Your task to perform on an android device: check out phone information Image 0: 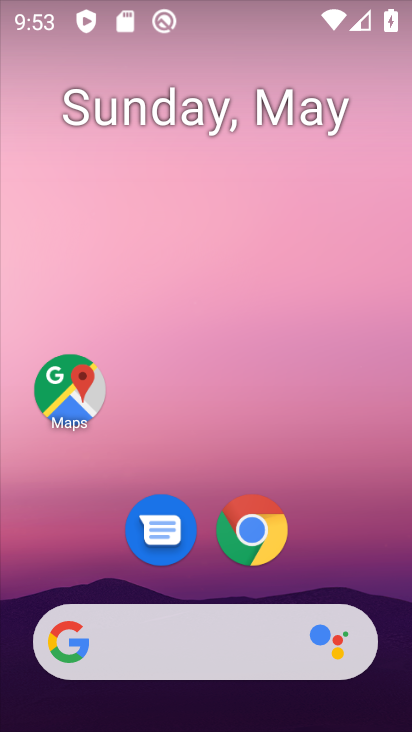
Step 0: drag from (397, 678) to (356, 161)
Your task to perform on an android device: check out phone information Image 1: 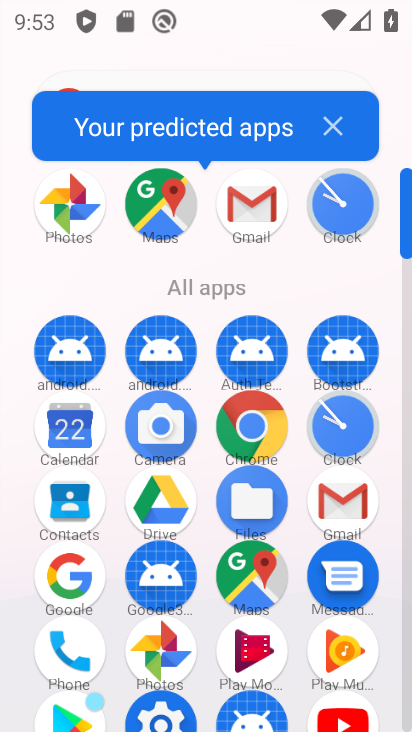
Step 1: click (167, 714)
Your task to perform on an android device: check out phone information Image 2: 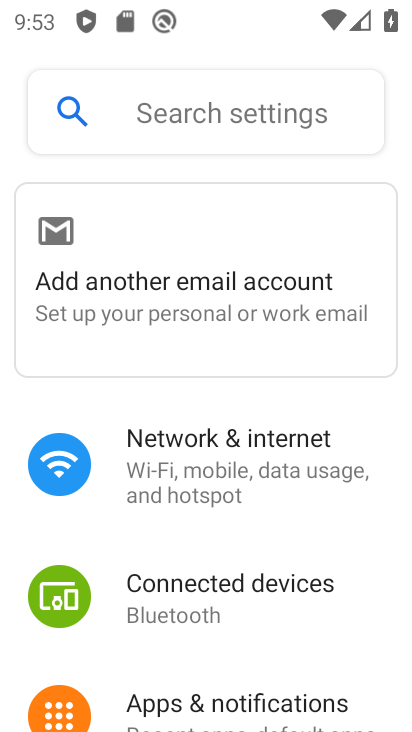
Step 2: drag from (371, 658) to (345, 238)
Your task to perform on an android device: check out phone information Image 3: 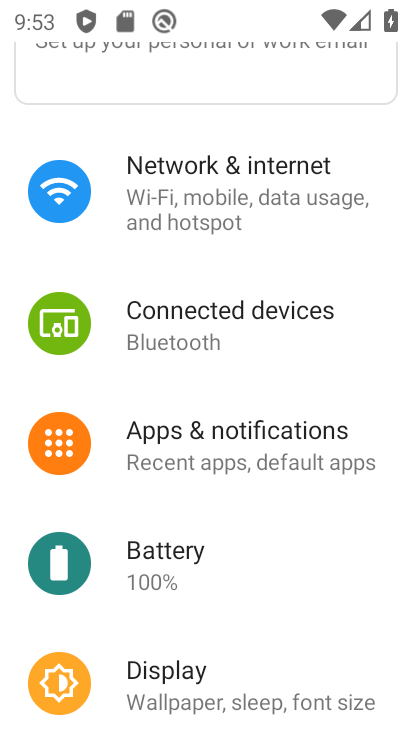
Step 3: drag from (391, 707) to (353, 228)
Your task to perform on an android device: check out phone information Image 4: 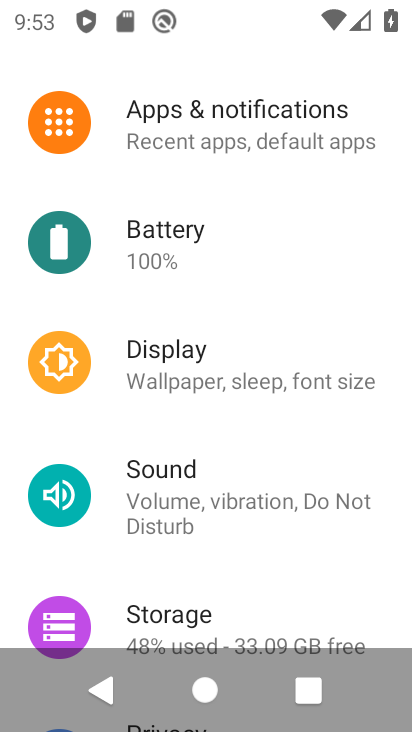
Step 4: drag from (388, 618) to (365, 311)
Your task to perform on an android device: check out phone information Image 5: 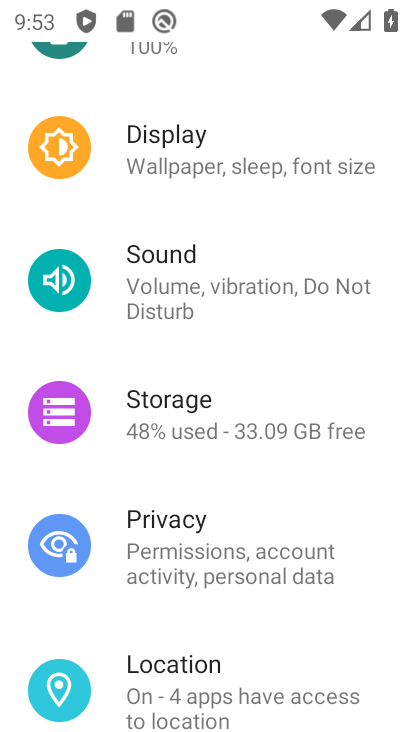
Step 5: drag from (380, 717) to (337, 117)
Your task to perform on an android device: check out phone information Image 6: 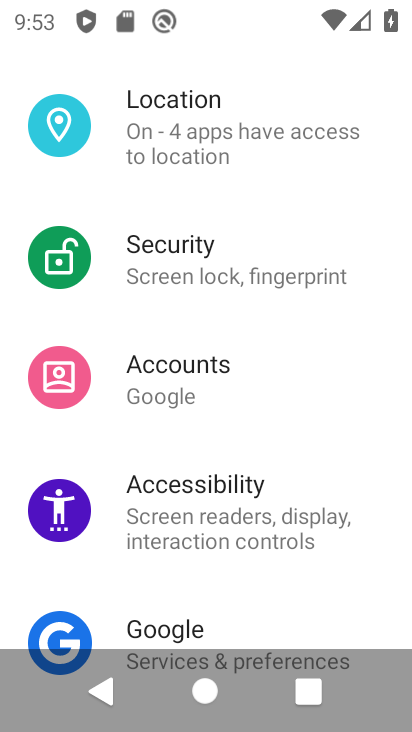
Step 6: drag from (375, 627) to (345, 194)
Your task to perform on an android device: check out phone information Image 7: 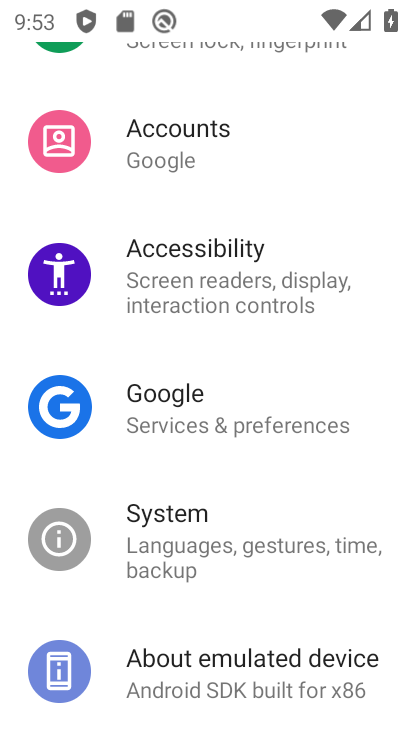
Step 7: click (251, 664)
Your task to perform on an android device: check out phone information Image 8: 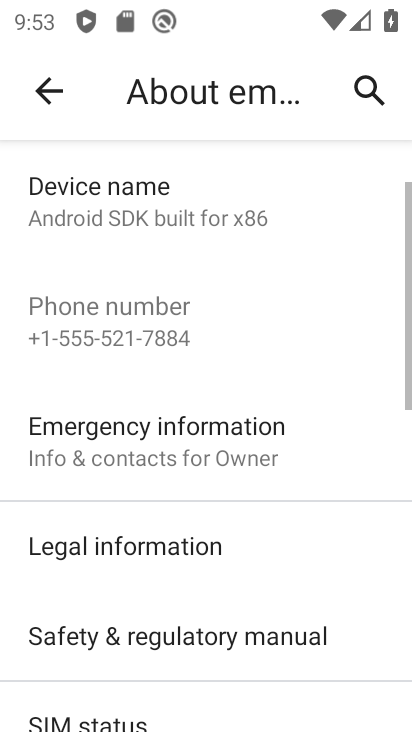
Step 8: task complete